Your task to perform on an android device: check out phone information Image 0: 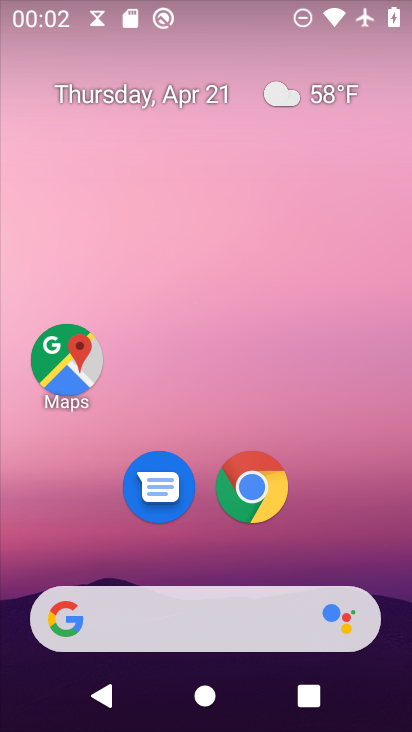
Step 0: drag from (318, 367) to (238, 12)
Your task to perform on an android device: check out phone information Image 1: 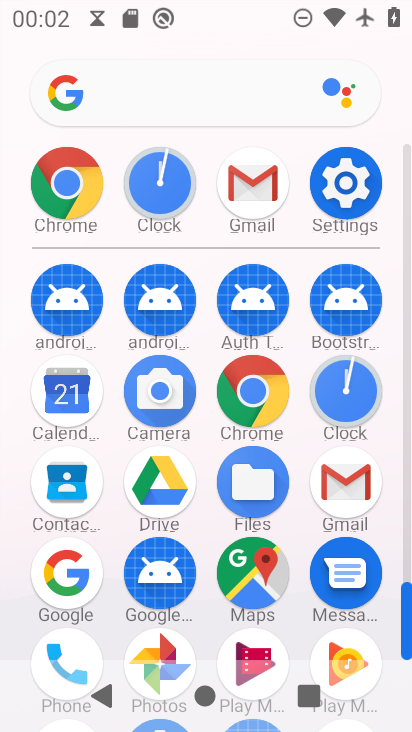
Step 1: drag from (0, 479) to (3, 365)
Your task to perform on an android device: check out phone information Image 2: 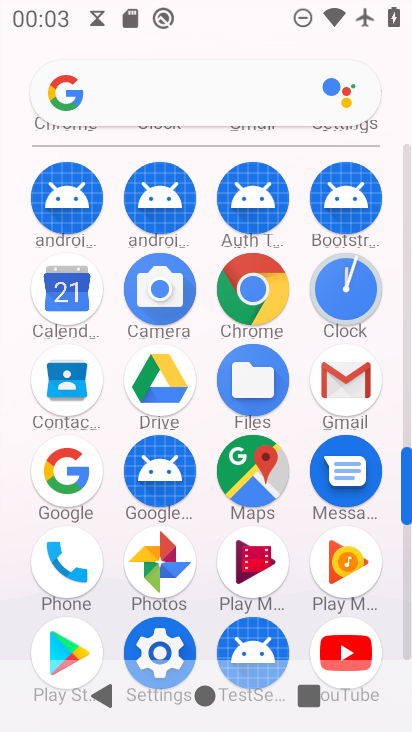
Step 2: click (152, 647)
Your task to perform on an android device: check out phone information Image 3: 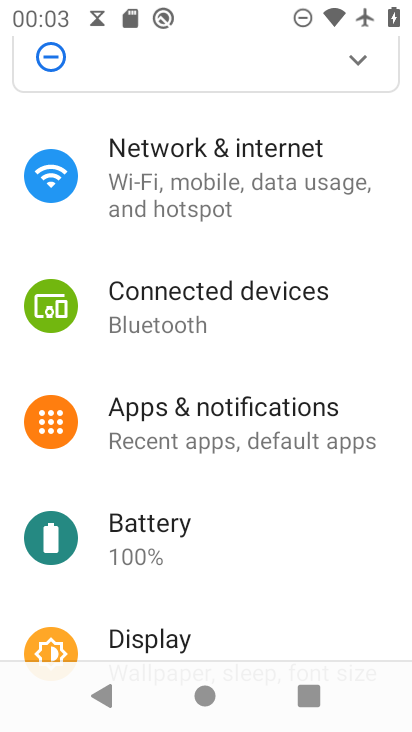
Step 3: drag from (321, 516) to (319, 137)
Your task to perform on an android device: check out phone information Image 4: 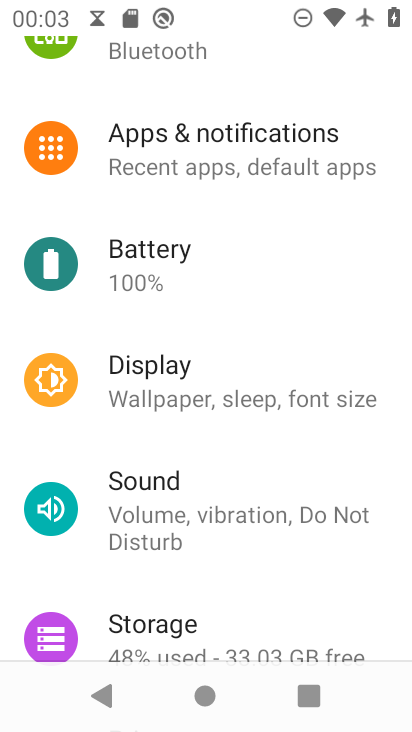
Step 4: drag from (324, 568) to (274, 213)
Your task to perform on an android device: check out phone information Image 5: 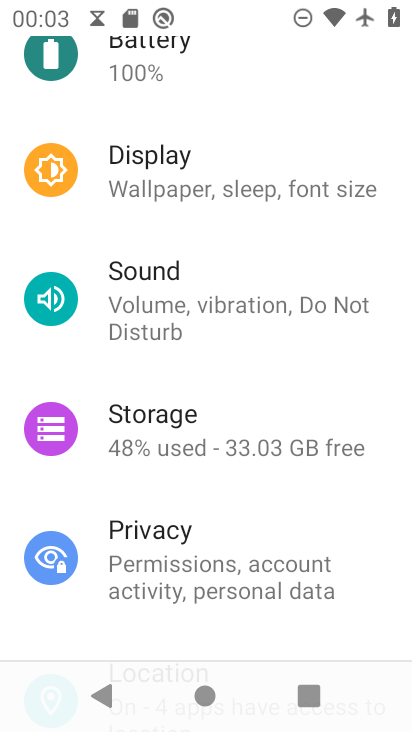
Step 5: drag from (309, 463) to (277, 162)
Your task to perform on an android device: check out phone information Image 6: 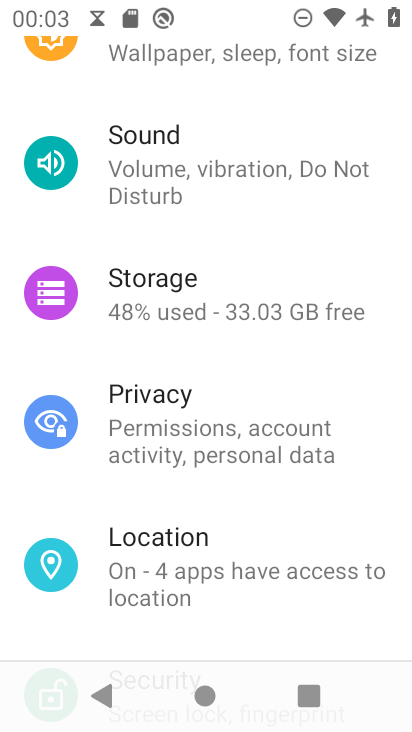
Step 6: drag from (275, 544) to (243, 128)
Your task to perform on an android device: check out phone information Image 7: 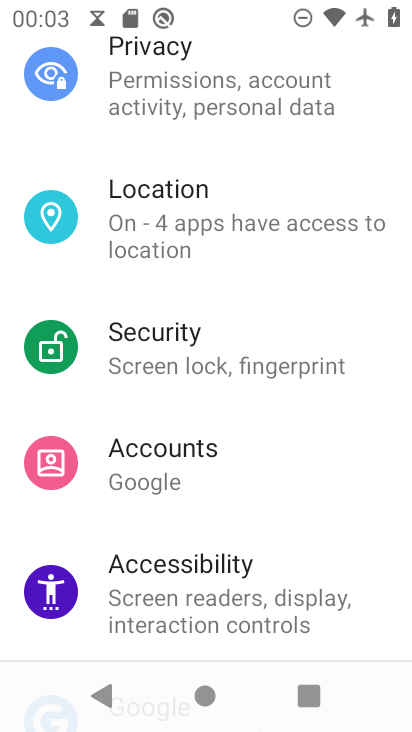
Step 7: drag from (373, 562) to (297, 225)
Your task to perform on an android device: check out phone information Image 8: 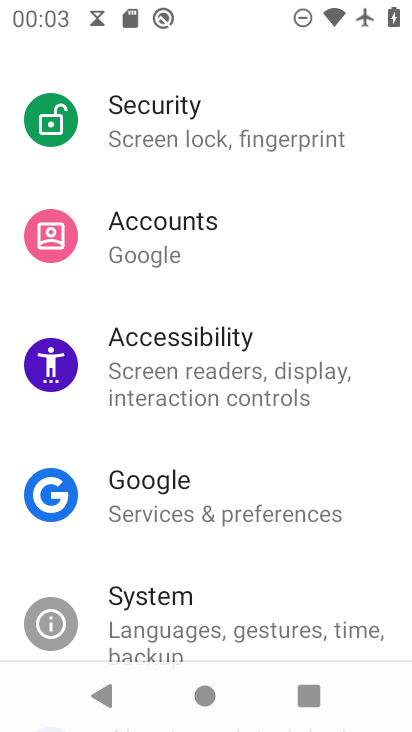
Step 8: drag from (305, 567) to (261, 257)
Your task to perform on an android device: check out phone information Image 9: 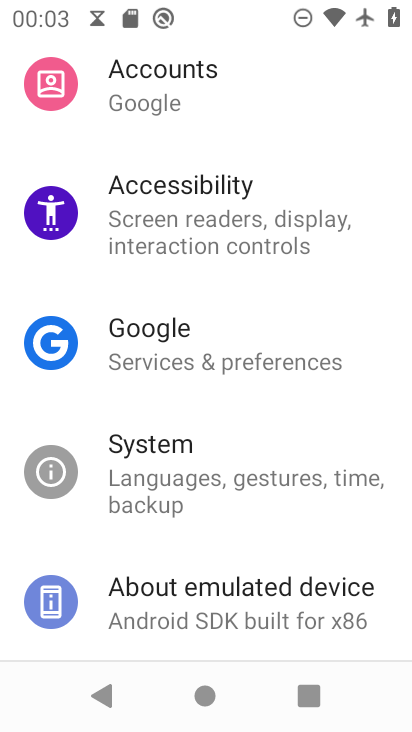
Step 9: drag from (214, 571) to (233, 262)
Your task to perform on an android device: check out phone information Image 10: 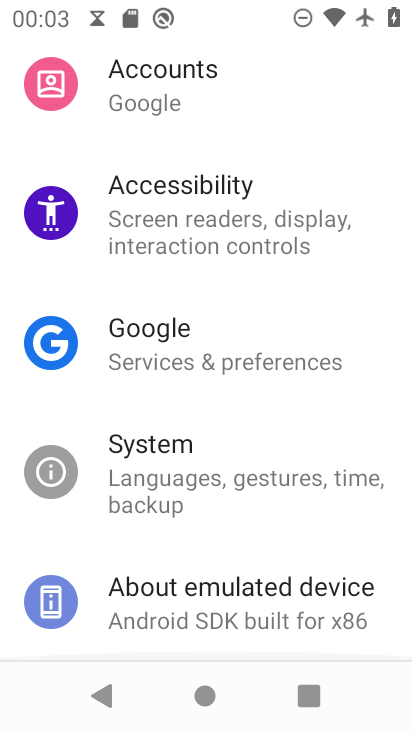
Step 10: click (268, 605)
Your task to perform on an android device: check out phone information Image 11: 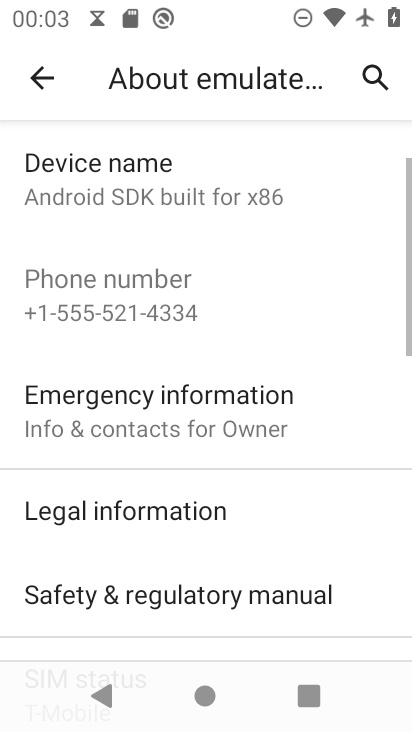
Step 11: task complete